Your task to perform on an android device: Toggle the flashlight Image 0: 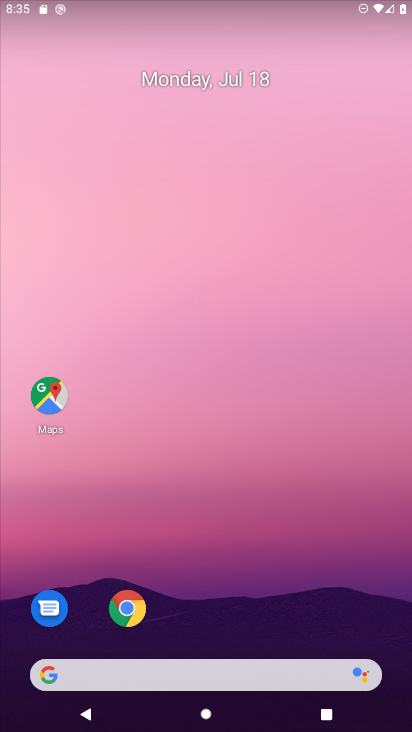
Step 0: drag from (267, 632) to (318, 131)
Your task to perform on an android device: Toggle the flashlight Image 1: 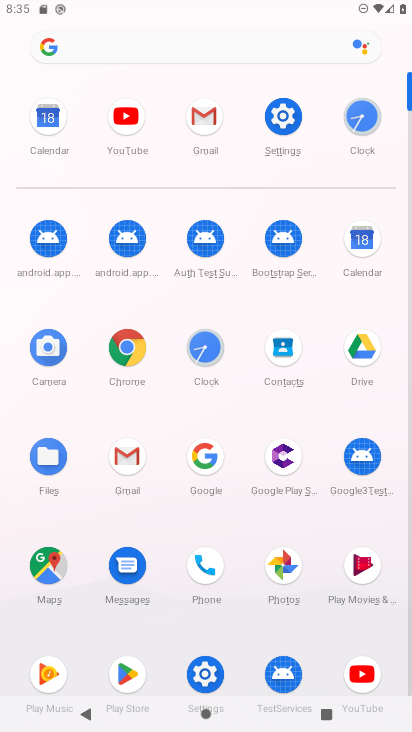
Step 1: click (288, 106)
Your task to perform on an android device: Toggle the flashlight Image 2: 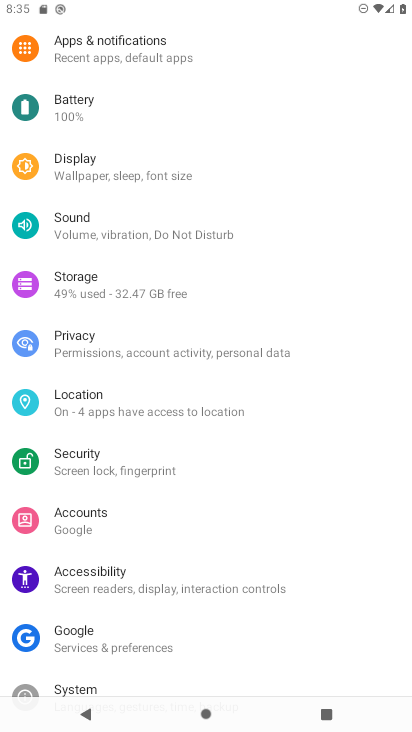
Step 2: task complete